Your task to perform on an android device: What is the recent news? Image 0: 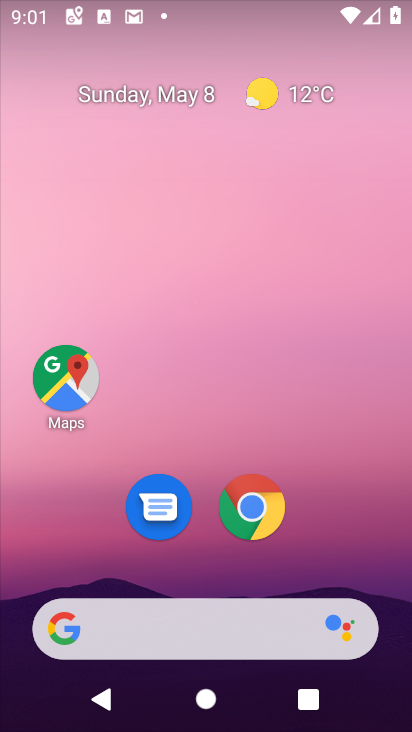
Step 0: click (215, 624)
Your task to perform on an android device: What is the recent news? Image 1: 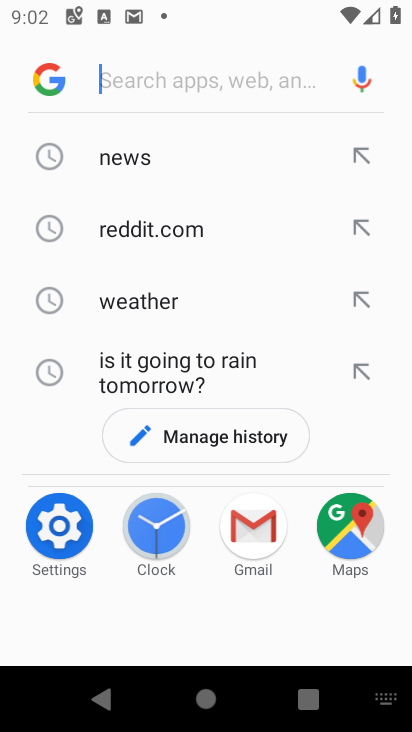
Step 1: type "What is the recent news?"
Your task to perform on an android device: What is the recent news? Image 2: 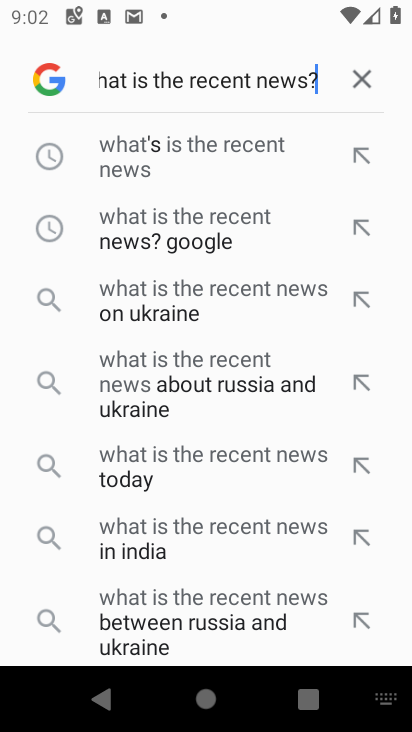
Step 2: click (206, 158)
Your task to perform on an android device: What is the recent news? Image 3: 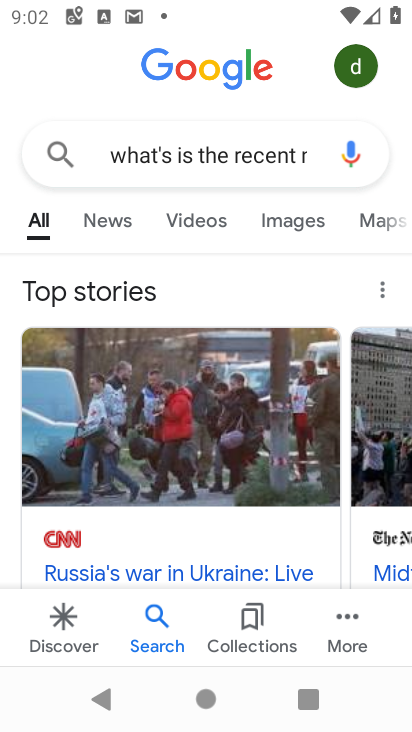
Step 3: task complete